Your task to perform on an android device: turn pop-ups off in chrome Image 0: 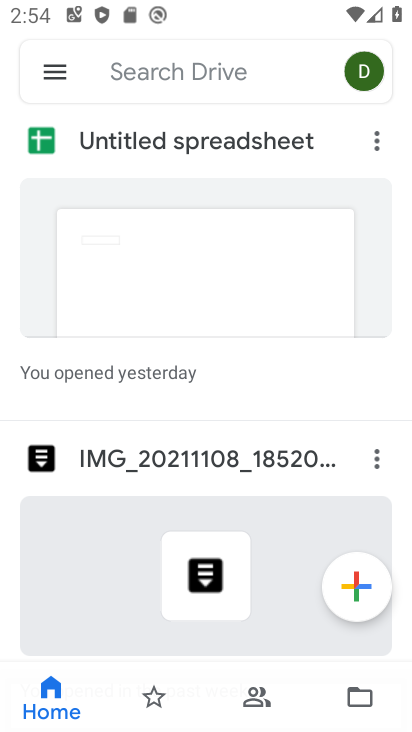
Step 0: press home button
Your task to perform on an android device: turn pop-ups off in chrome Image 1: 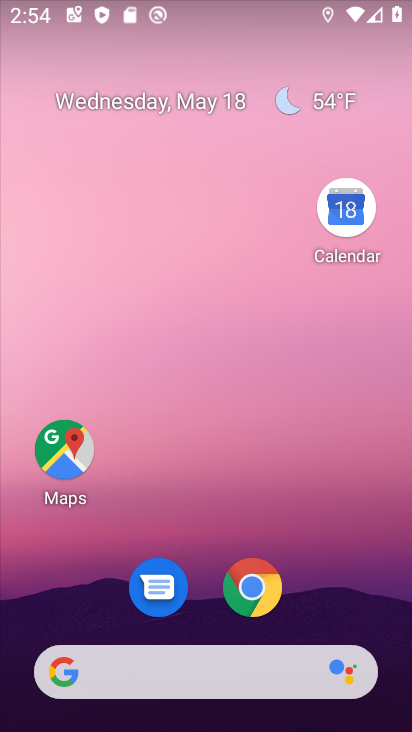
Step 1: drag from (193, 618) to (204, 1)
Your task to perform on an android device: turn pop-ups off in chrome Image 2: 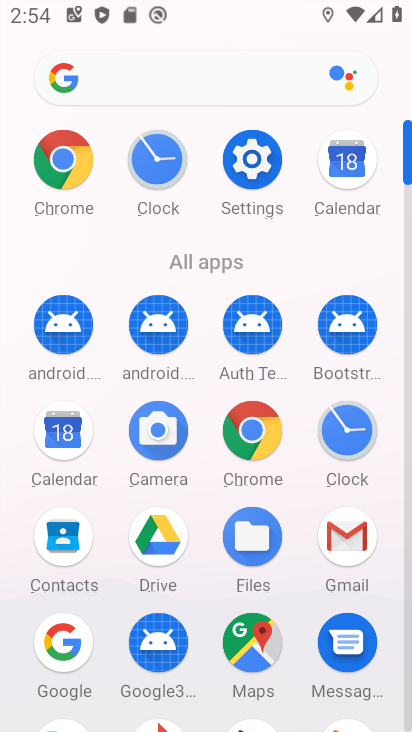
Step 2: click (252, 426)
Your task to perform on an android device: turn pop-ups off in chrome Image 3: 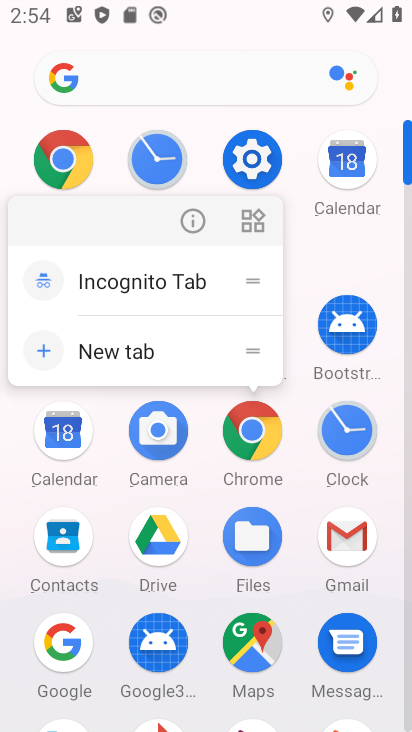
Step 3: click (187, 223)
Your task to perform on an android device: turn pop-ups off in chrome Image 4: 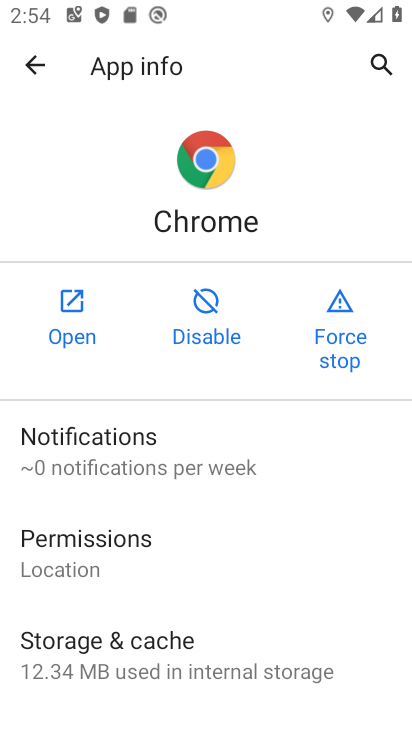
Step 4: click (84, 296)
Your task to perform on an android device: turn pop-ups off in chrome Image 5: 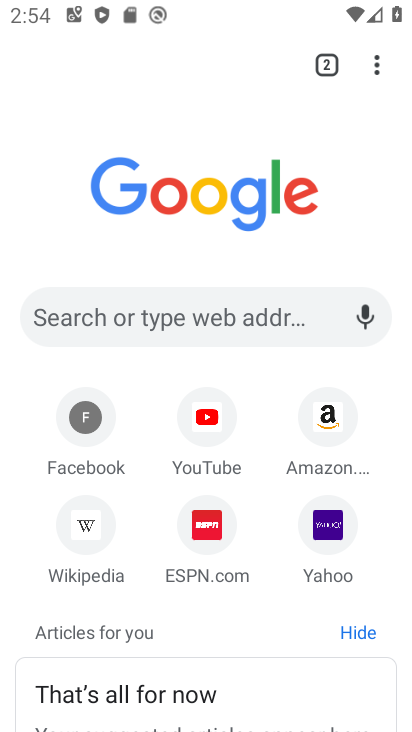
Step 5: drag from (148, 578) to (172, 301)
Your task to perform on an android device: turn pop-ups off in chrome Image 6: 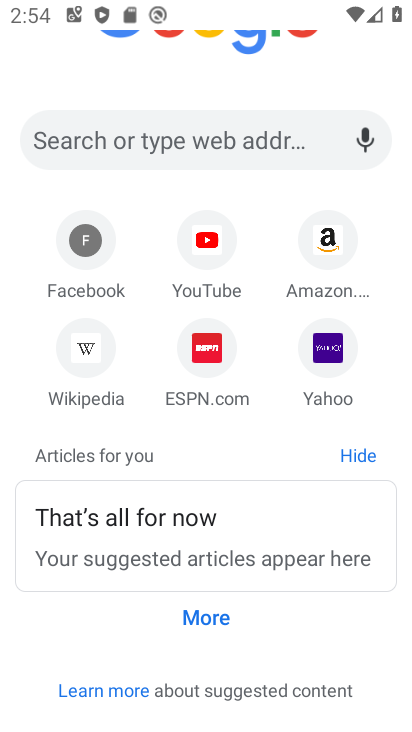
Step 6: drag from (216, 432) to (168, 731)
Your task to perform on an android device: turn pop-ups off in chrome Image 7: 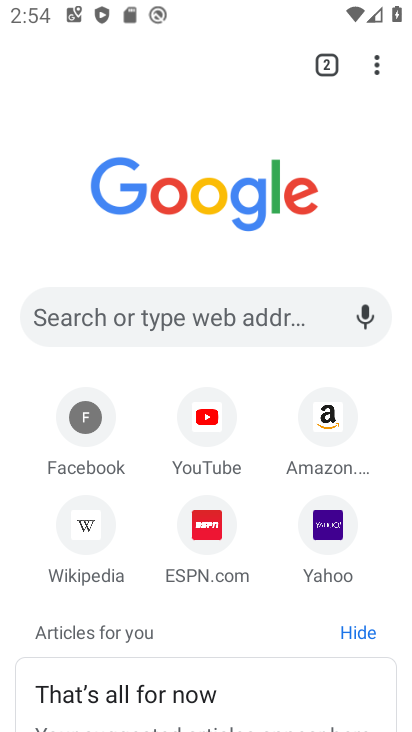
Step 7: drag from (152, 485) to (345, 718)
Your task to perform on an android device: turn pop-ups off in chrome Image 8: 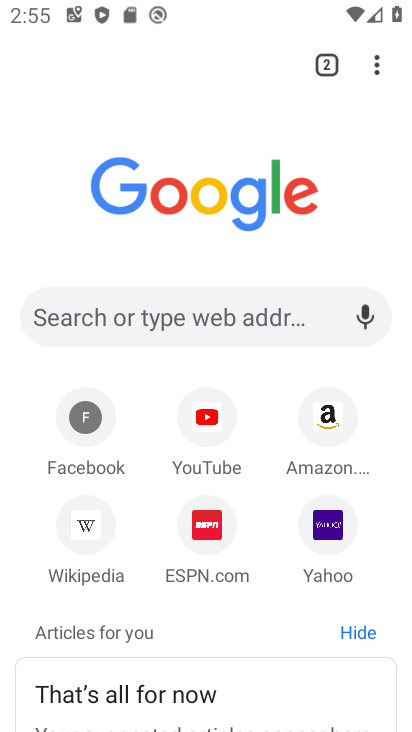
Step 8: drag from (262, 489) to (252, 172)
Your task to perform on an android device: turn pop-ups off in chrome Image 9: 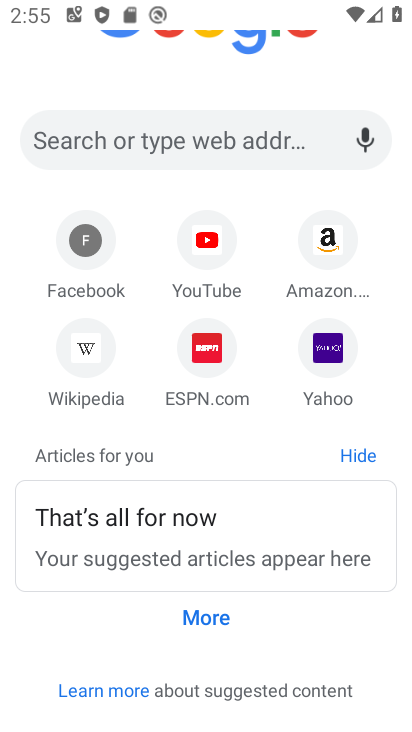
Step 9: drag from (263, 199) to (240, 647)
Your task to perform on an android device: turn pop-ups off in chrome Image 10: 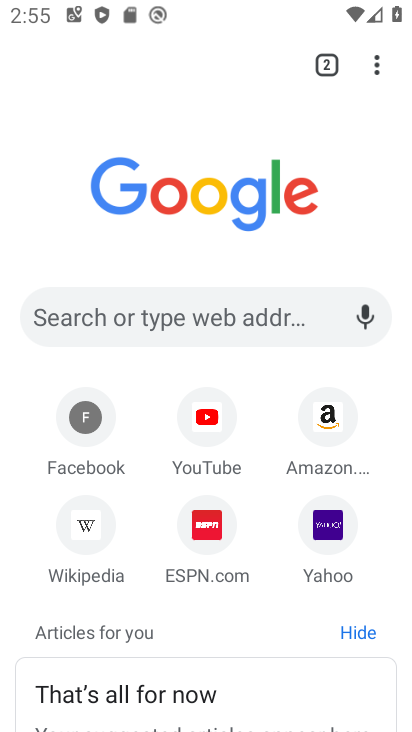
Step 10: click (372, 67)
Your task to perform on an android device: turn pop-ups off in chrome Image 11: 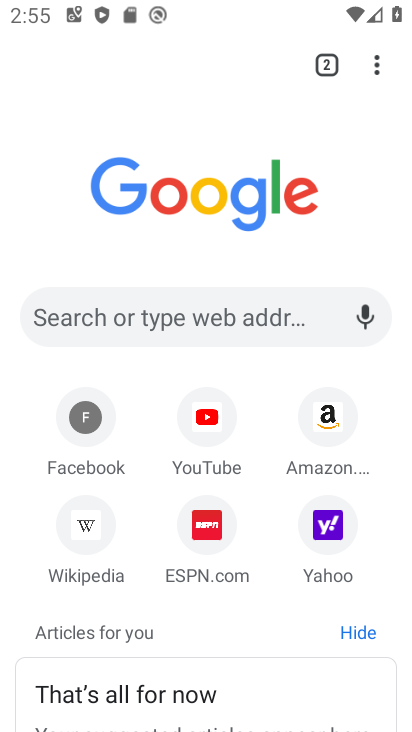
Step 11: click (371, 55)
Your task to perform on an android device: turn pop-ups off in chrome Image 12: 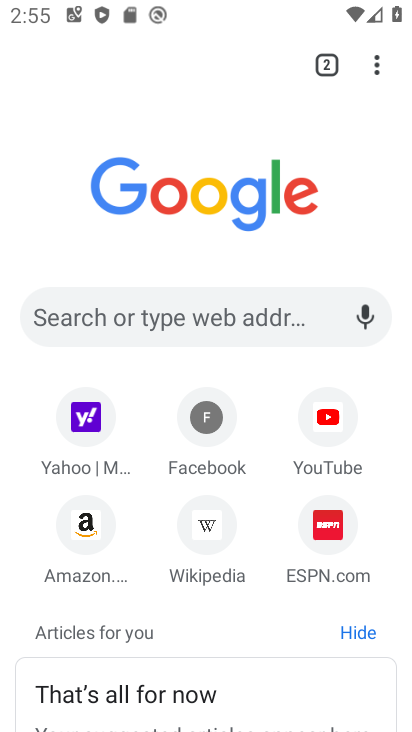
Step 12: click (380, 60)
Your task to perform on an android device: turn pop-ups off in chrome Image 13: 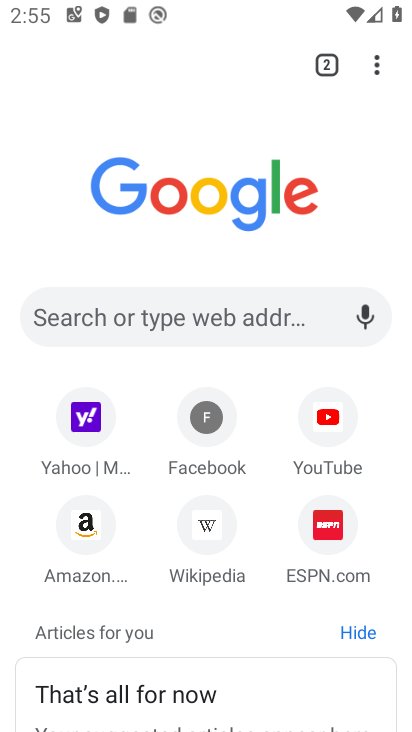
Step 13: click (380, 60)
Your task to perform on an android device: turn pop-ups off in chrome Image 14: 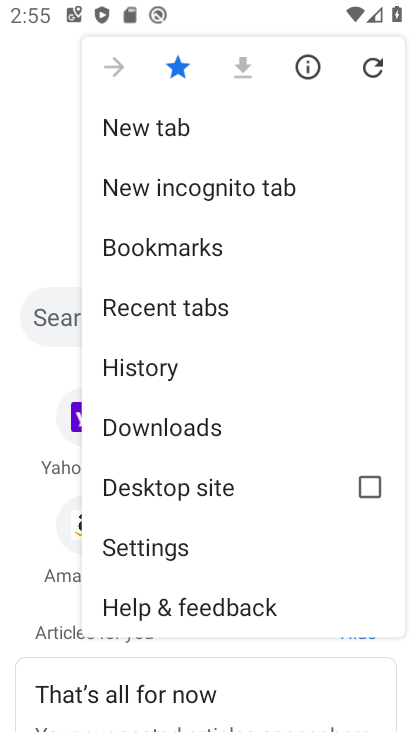
Step 14: click (155, 541)
Your task to perform on an android device: turn pop-ups off in chrome Image 15: 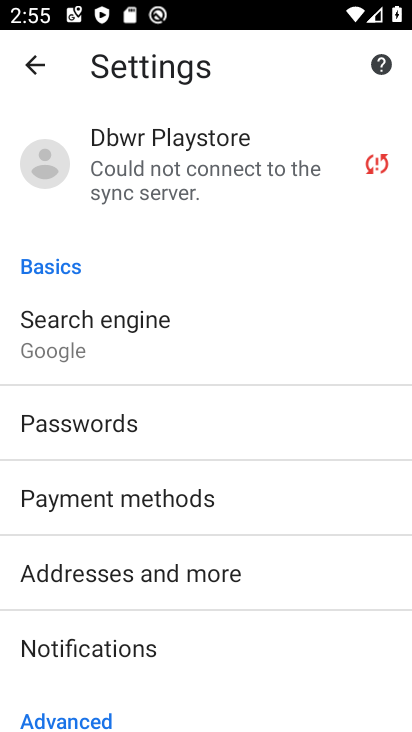
Step 15: drag from (273, 638) to (386, 130)
Your task to perform on an android device: turn pop-ups off in chrome Image 16: 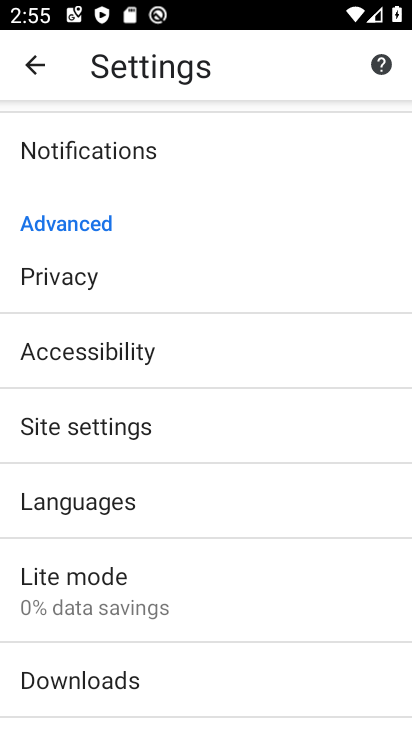
Step 16: click (117, 450)
Your task to perform on an android device: turn pop-ups off in chrome Image 17: 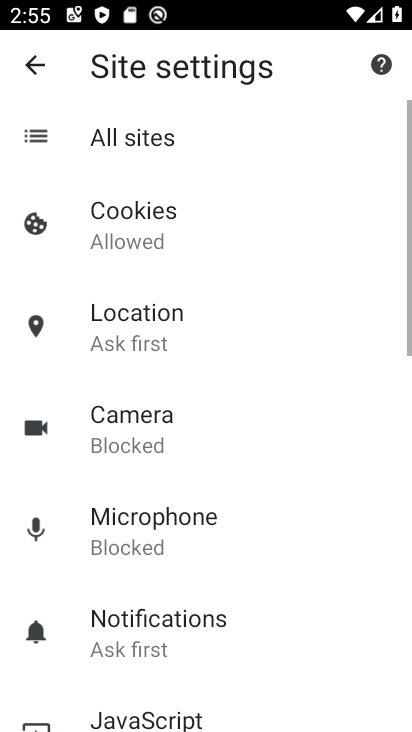
Step 17: drag from (210, 671) to (370, 155)
Your task to perform on an android device: turn pop-ups off in chrome Image 18: 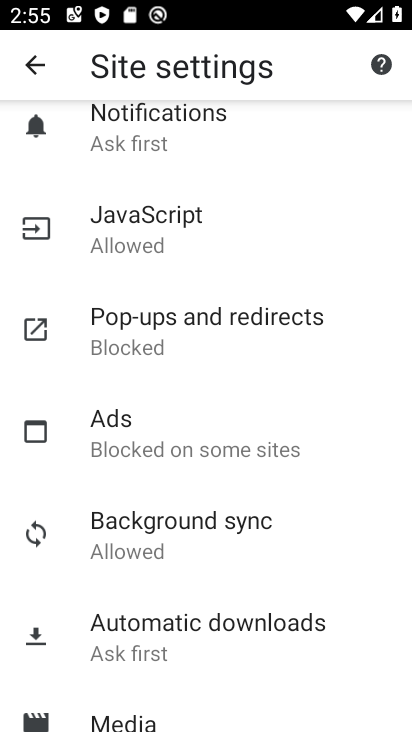
Step 18: click (193, 327)
Your task to perform on an android device: turn pop-ups off in chrome Image 19: 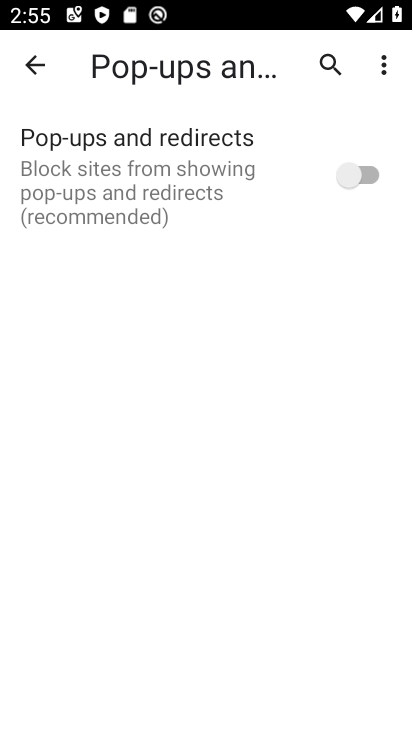
Step 19: click (286, 169)
Your task to perform on an android device: turn pop-ups off in chrome Image 20: 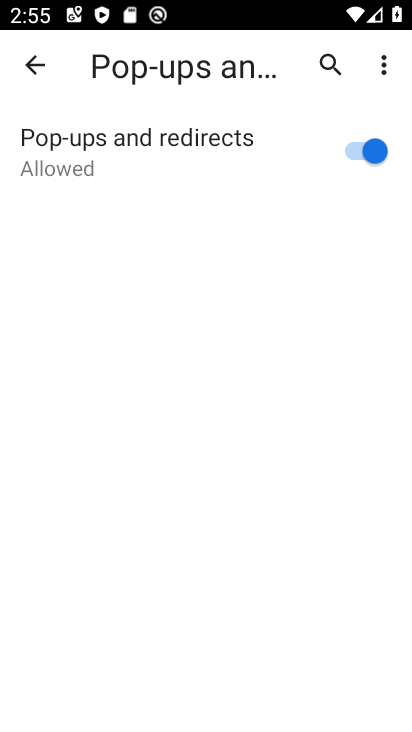
Step 20: click (289, 170)
Your task to perform on an android device: turn pop-ups off in chrome Image 21: 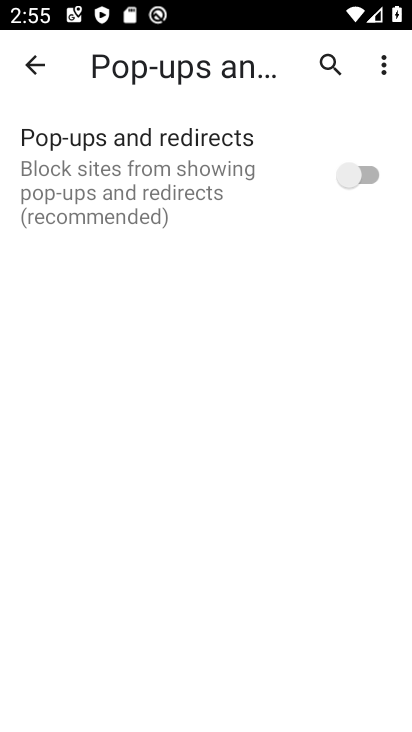
Step 21: task complete